Your task to perform on an android device: Open calendar and show me the first week of next month Image 0: 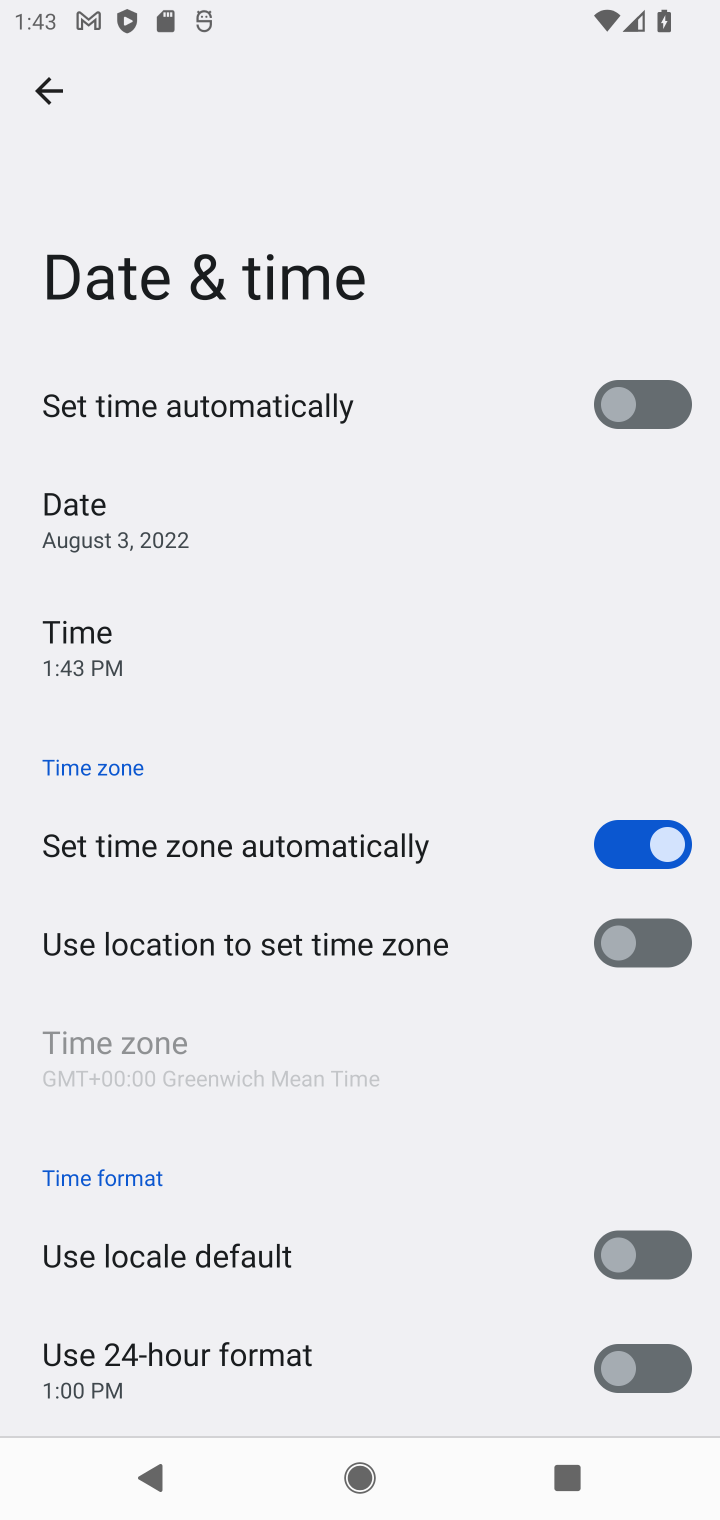
Step 0: press home button
Your task to perform on an android device: Open calendar and show me the first week of next month Image 1: 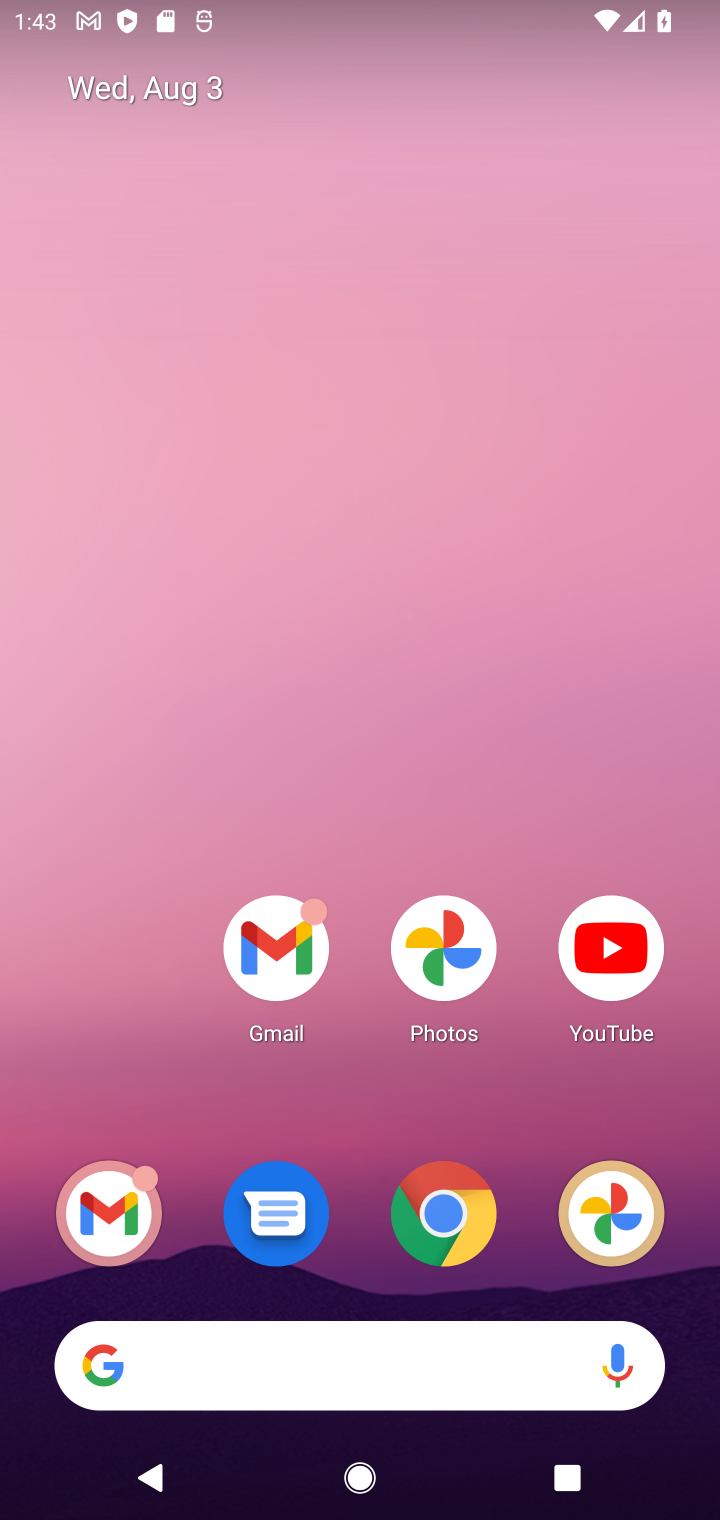
Step 1: drag from (260, 1260) to (477, 163)
Your task to perform on an android device: Open calendar and show me the first week of next month Image 2: 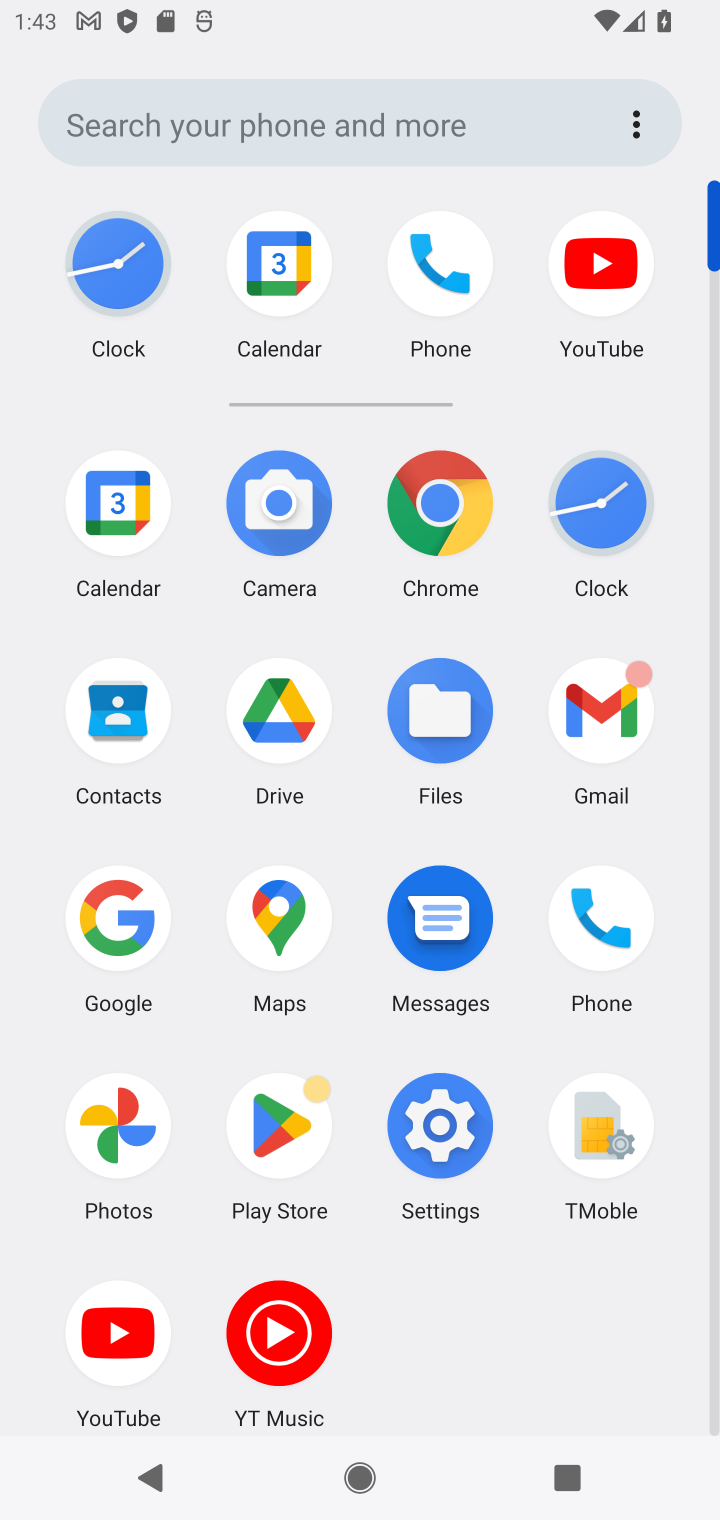
Step 2: click (120, 520)
Your task to perform on an android device: Open calendar and show me the first week of next month Image 3: 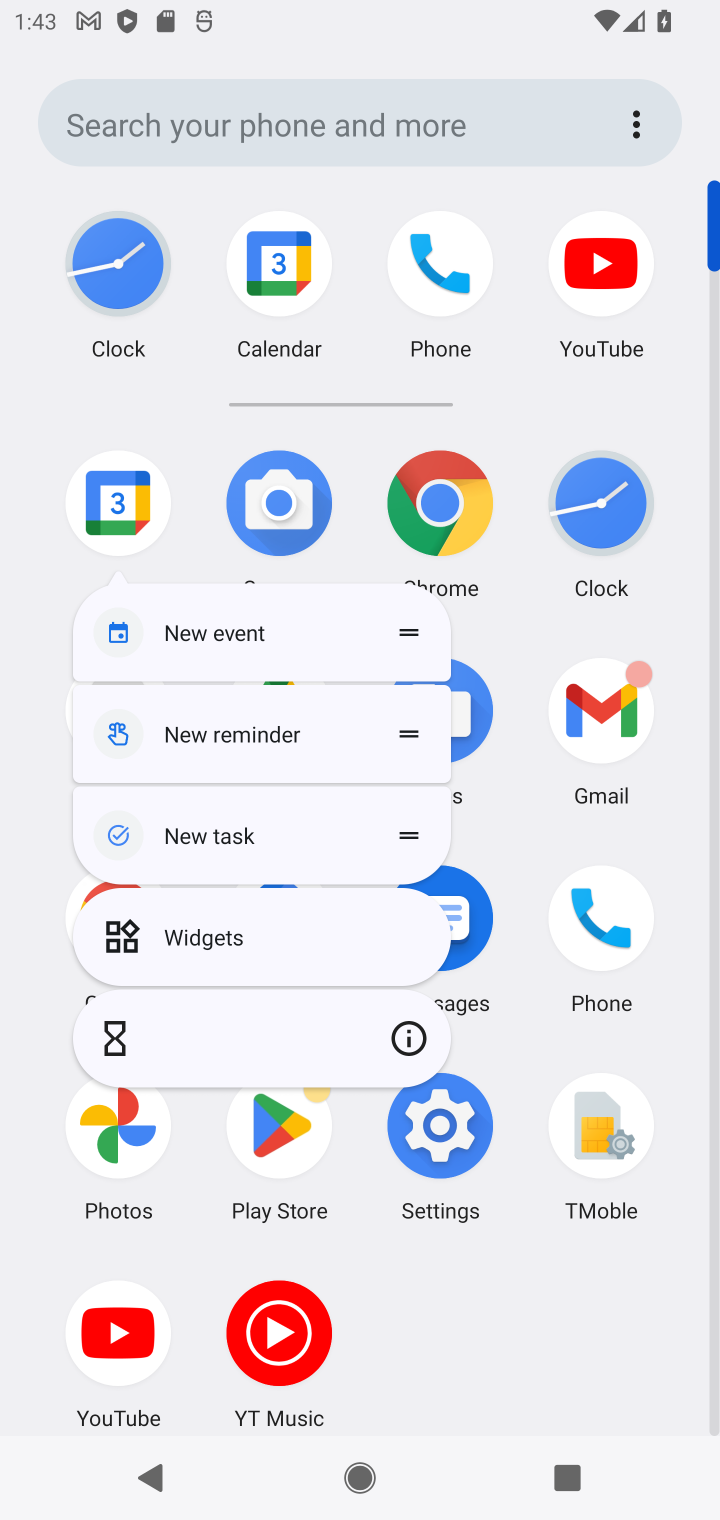
Step 3: click (120, 519)
Your task to perform on an android device: Open calendar and show me the first week of next month Image 4: 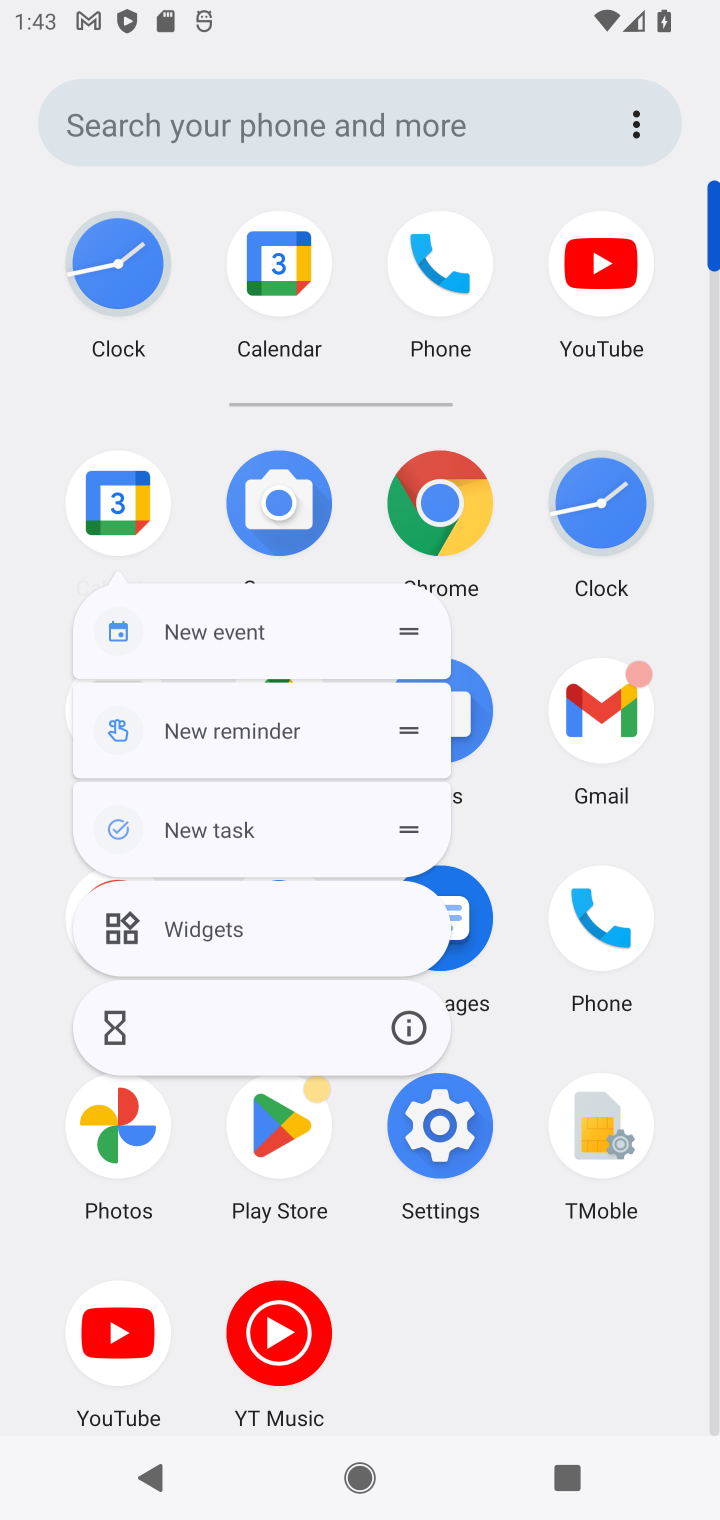
Step 4: click (120, 519)
Your task to perform on an android device: Open calendar and show me the first week of next month Image 5: 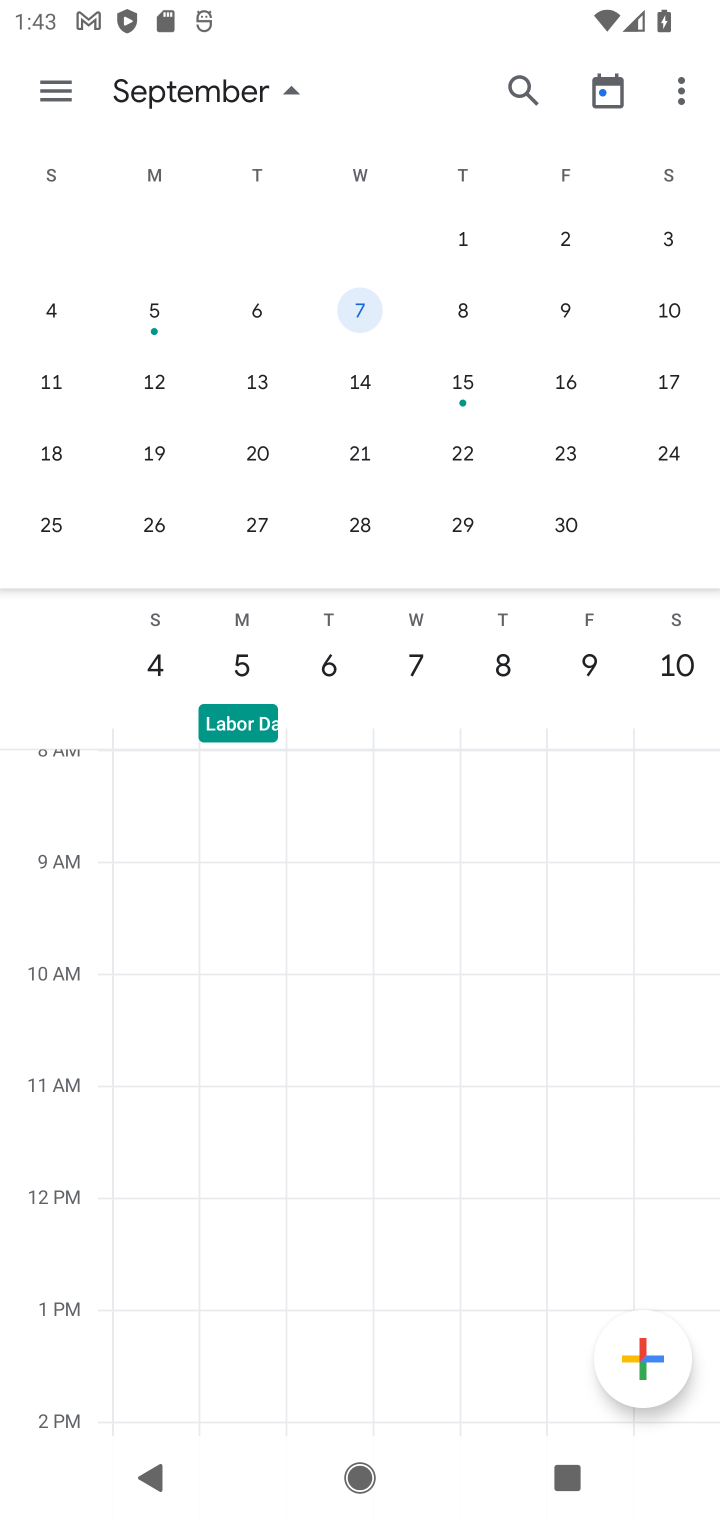
Step 5: click (452, 224)
Your task to perform on an android device: Open calendar and show me the first week of next month Image 6: 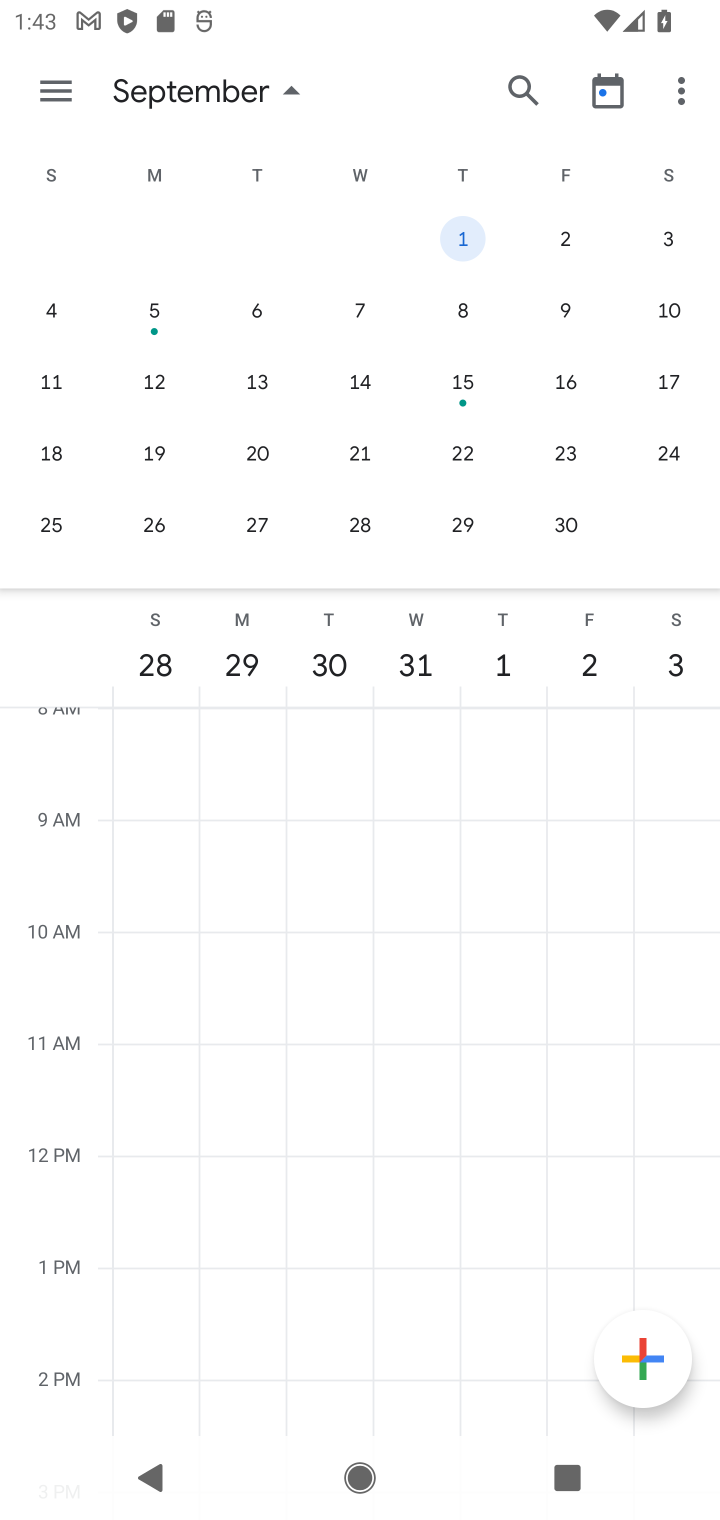
Step 6: task complete